Your task to perform on an android device: find snoozed emails in the gmail app Image 0: 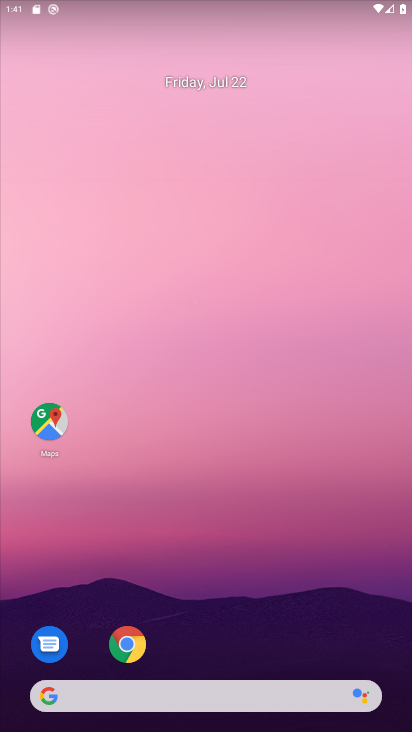
Step 0: drag from (307, 644) to (335, 11)
Your task to perform on an android device: find snoozed emails in the gmail app Image 1: 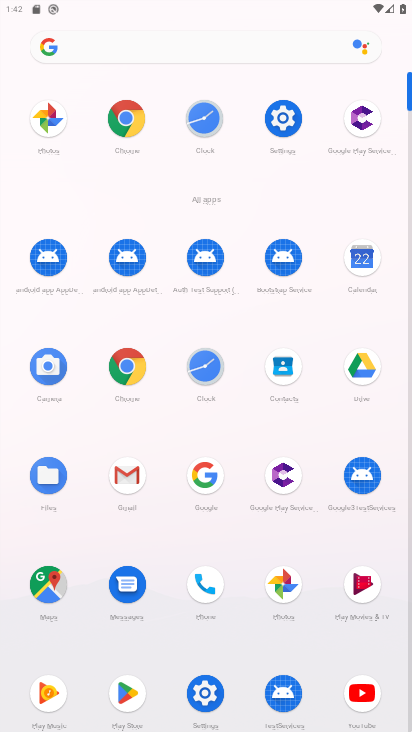
Step 1: click (130, 501)
Your task to perform on an android device: find snoozed emails in the gmail app Image 2: 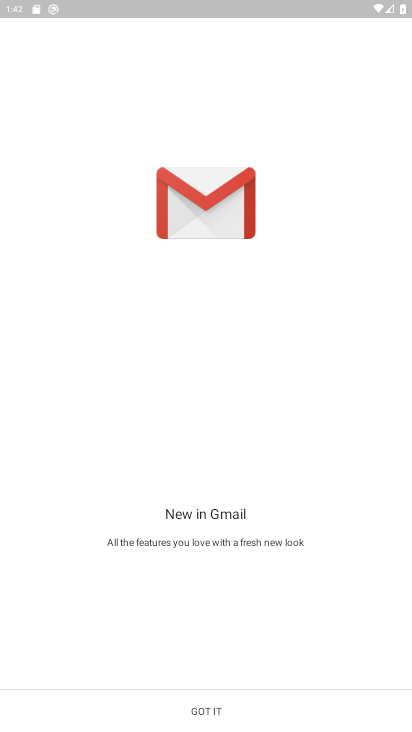
Step 2: click (255, 697)
Your task to perform on an android device: find snoozed emails in the gmail app Image 3: 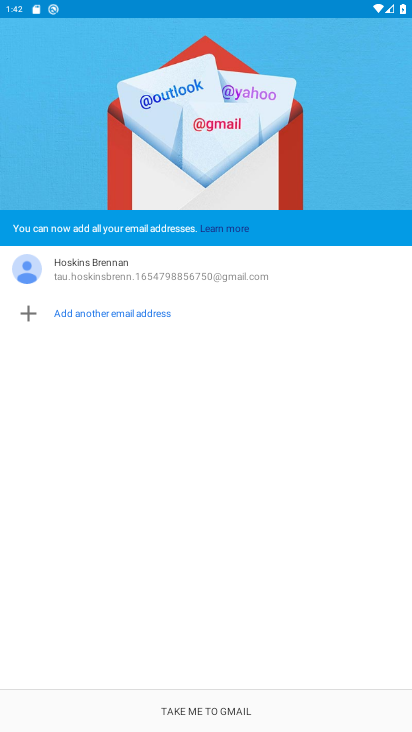
Step 3: click (227, 718)
Your task to perform on an android device: find snoozed emails in the gmail app Image 4: 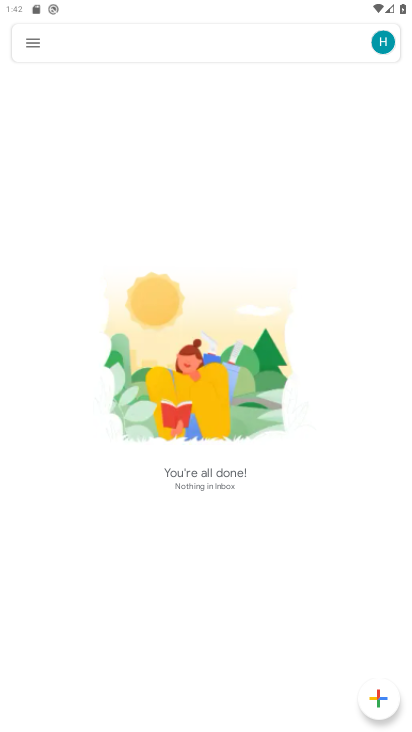
Step 4: click (32, 43)
Your task to perform on an android device: find snoozed emails in the gmail app Image 5: 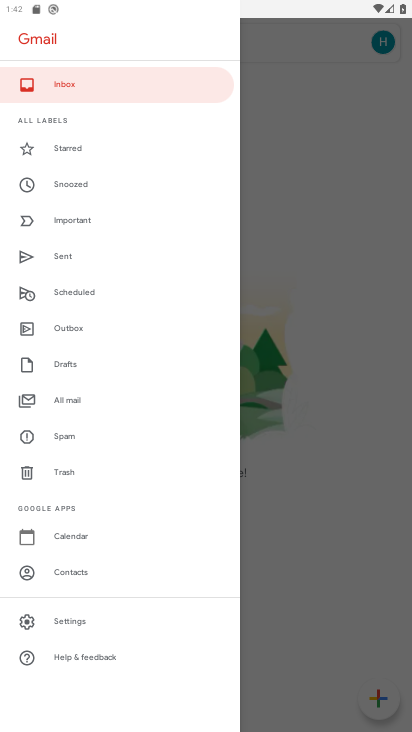
Step 5: click (74, 190)
Your task to perform on an android device: find snoozed emails in the gmail app Image 6: 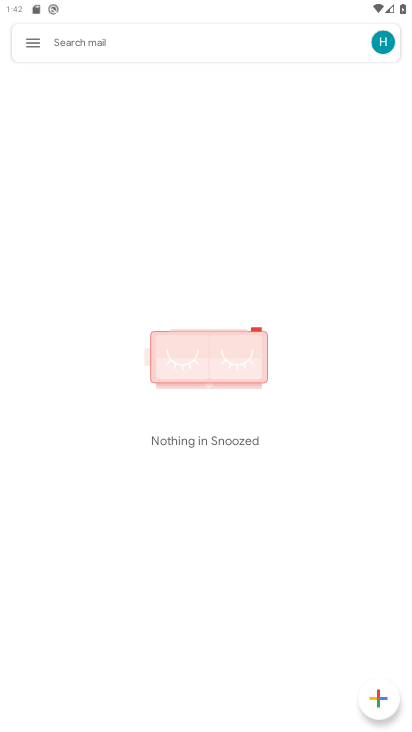
Step 6: task complete